Your task to perform on an android device: allow cookies in the chrome app Image 0: 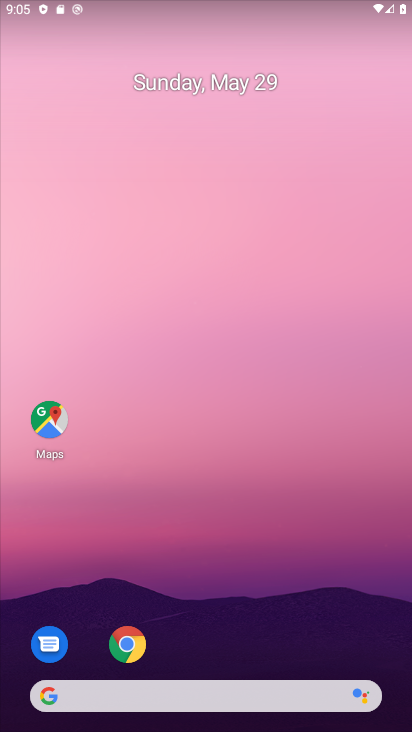
Step 0: drag from (221, 630) to (228, 260)
Your task to perform on an android device: allow cookies in the chrome app Image 1: 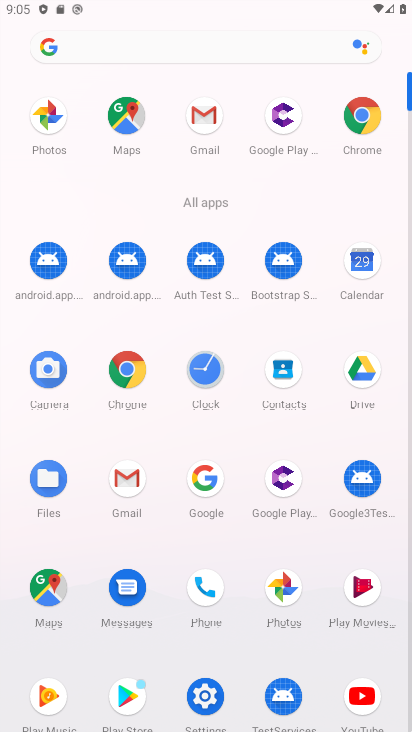
Step 1: click (198, 697)
Your task to perform on an android device: allow cookies in the chrome app Image 2: 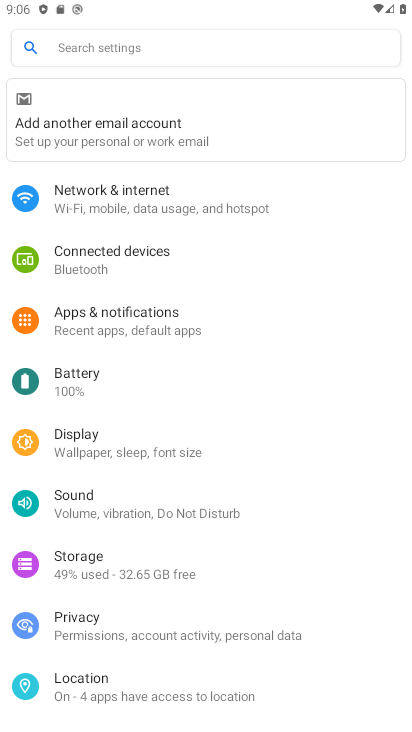
Step 2: click (153, 188)
Your task to perform on an android device: allow cookies in the chrome app Image 3: 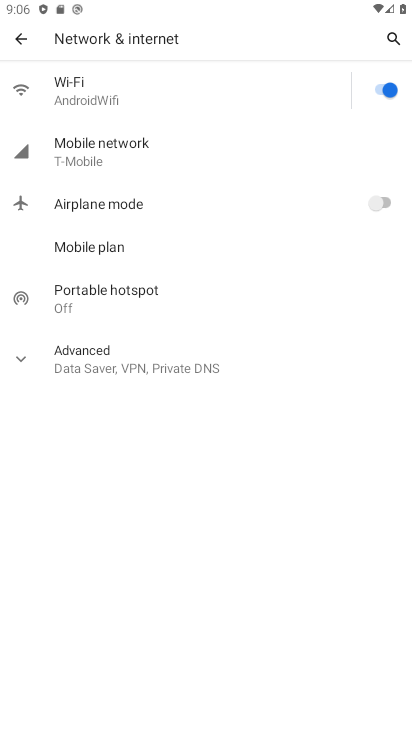
Step 3: press home button
Your task to perform on an android device: allow cookies in the chrome app Image 4: 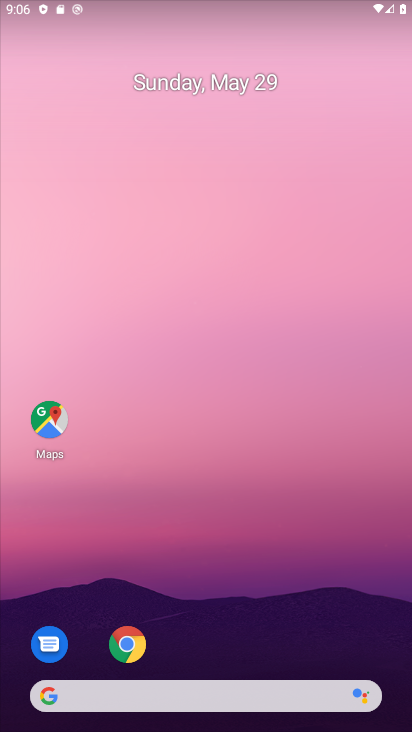
Step 4: drag from (237, 619) to (206, 304)
Your task to perform on an android device: allow cookies in the chrome app Image 5: 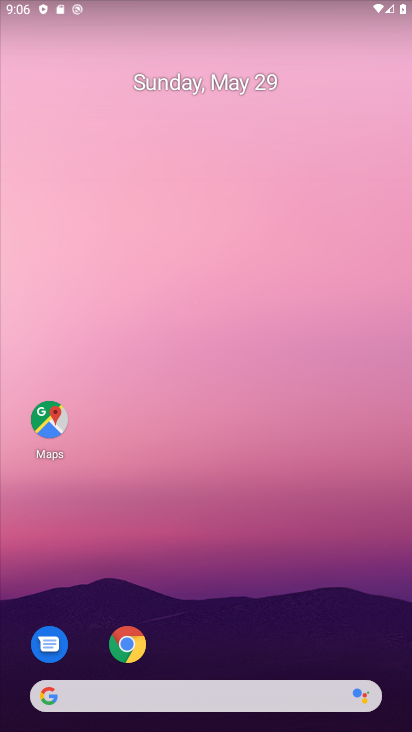
Step 5: drag from (223, 633) to (265, 192)
Your task to perform on an android device: allow cookies in the chrome app Image 6: 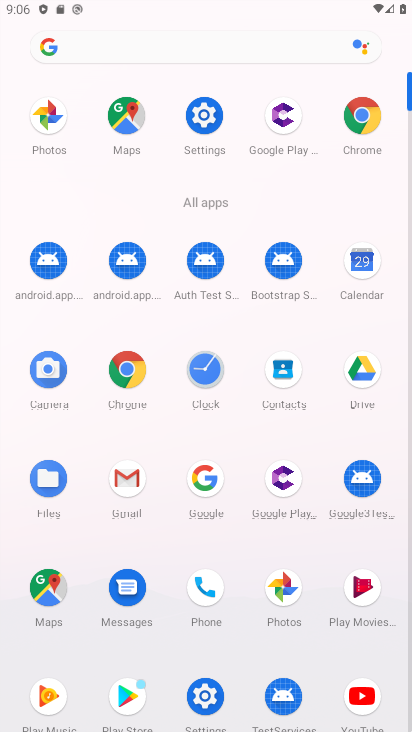
Step 6: click (199, 477)
Your task to perform on an android device: allow cookies in the chrome app Image 7: 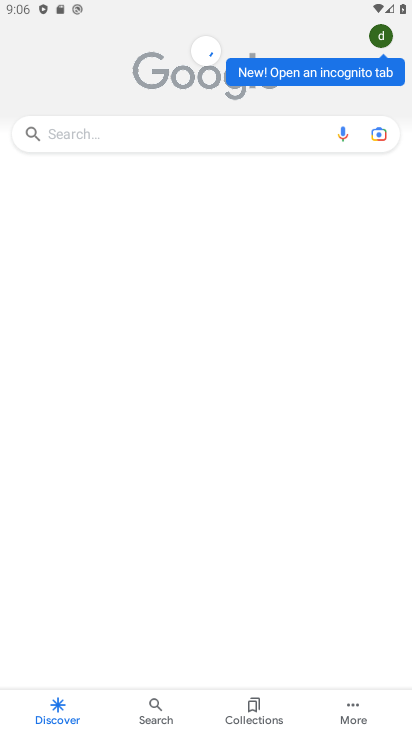
Step 7: press home button
Your task to perform on an android device: allow cookies in the chrome app Image 8: 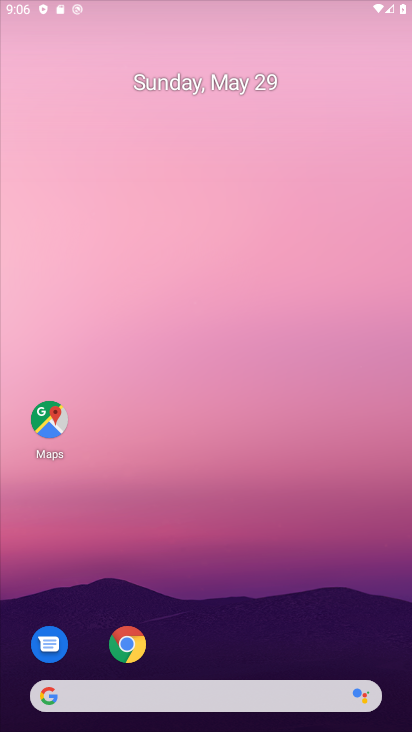
Step 8: drag from (221, 572) to (222, 155)
Your task to perform on an android device: allow cookies in the chrome app Image 9: 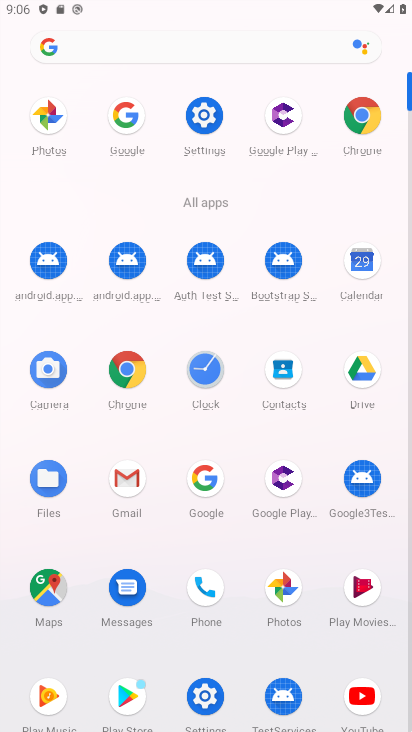
Step 9: click (368, 114)
Your task to perform on an android device: allow cookies in the chrome app Image 10: 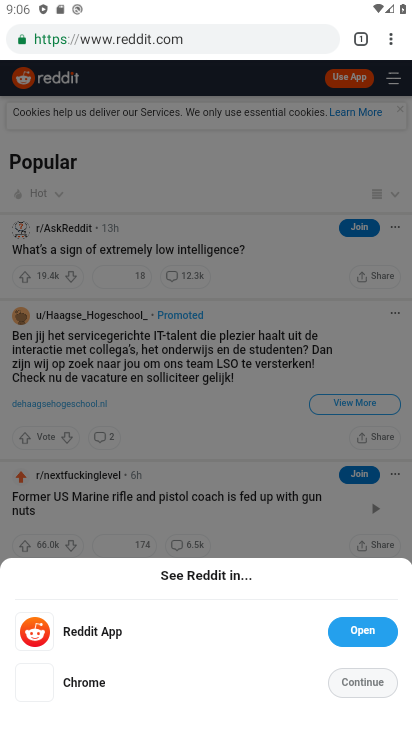
Step 10: click (391, 36)
Your task to perform on an android device: allow cookies in the chrome app Image 11: 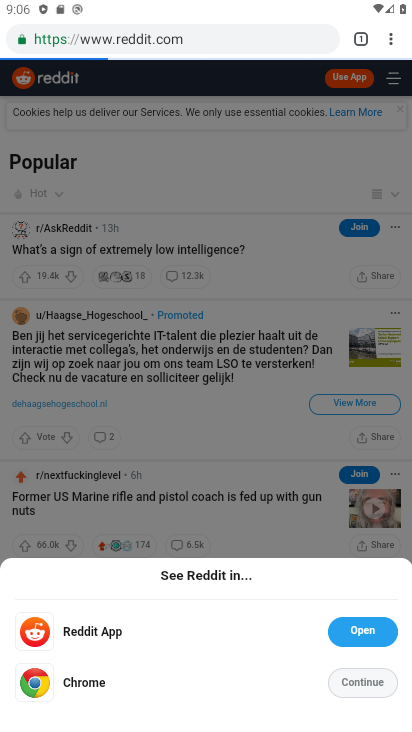
Step 11: click (390, 36)
Your task to perform on an android device: allow cookies in the chrome app Image 12: 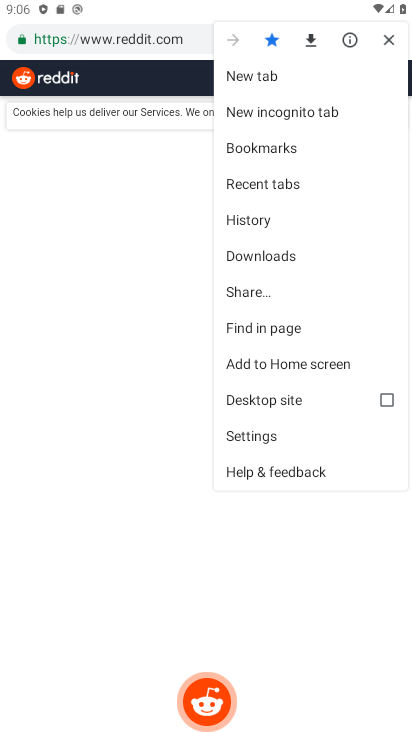
Step 12: click (270, 430)
Your task to perform on an android device: allow cookies in the chrome app Image 13: 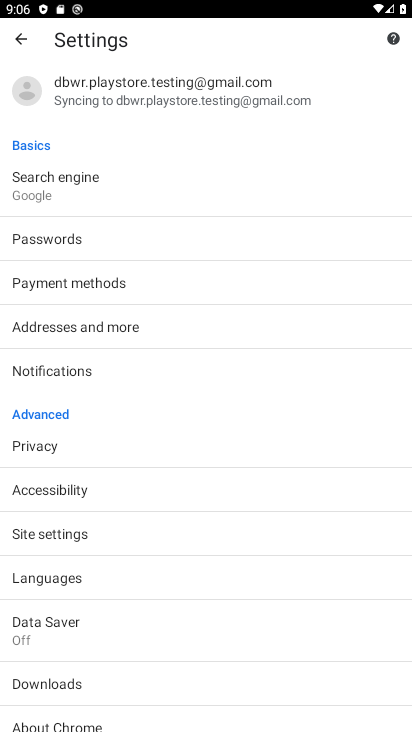
Step 13: click (82, 531)
Your task to perform on an android device: allow cookies in the chrome app Image 14: 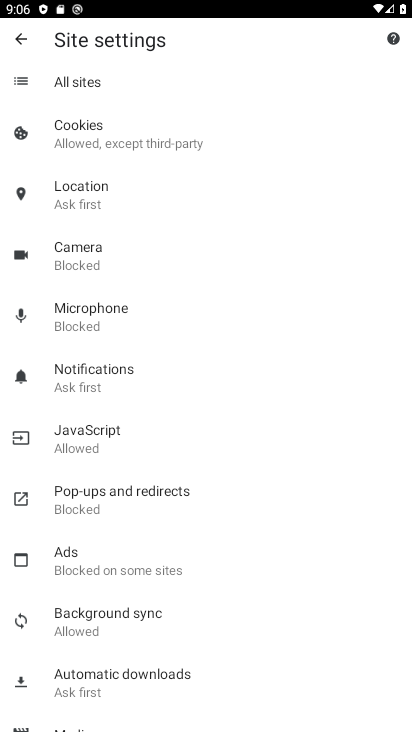
Step 14: click (104, 144)
Your task to perform on an android device: allow cookies in the chrome app Image 15: 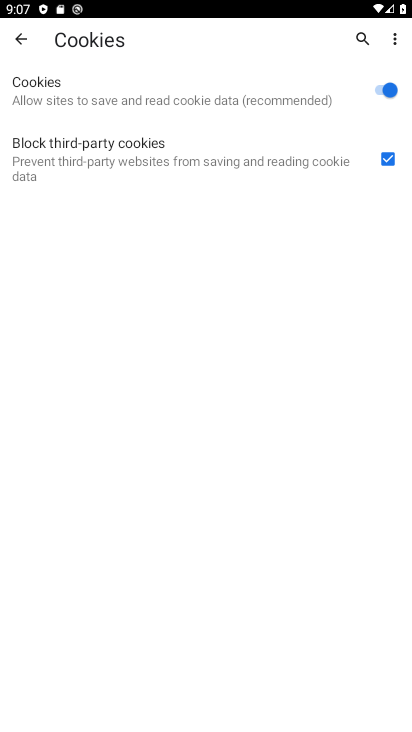
Step 15: task complete